Your task to perform on an android device: toggle data saver in the chrome app Image 0: 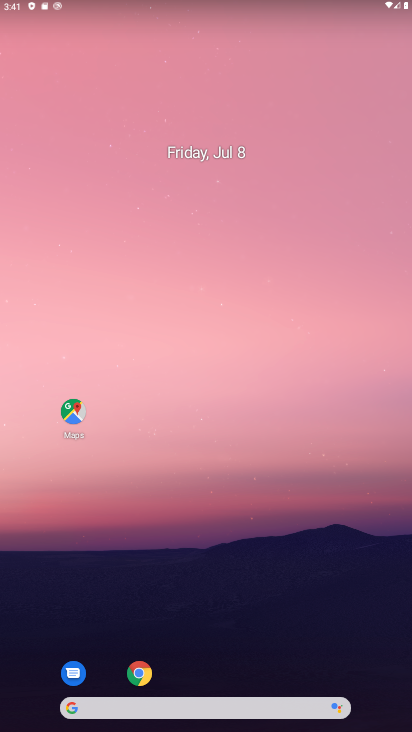
Step 0: click (140, 674)
Your task to perform on an android device: toggle data saver in the chrome app Image 1: 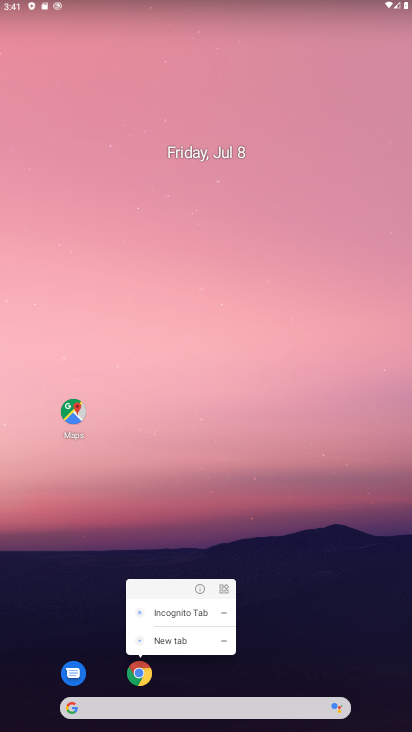
Step 1: click (141, 672)
Your task to perform on an android device: toggle data saver in the chrome app Image 2: 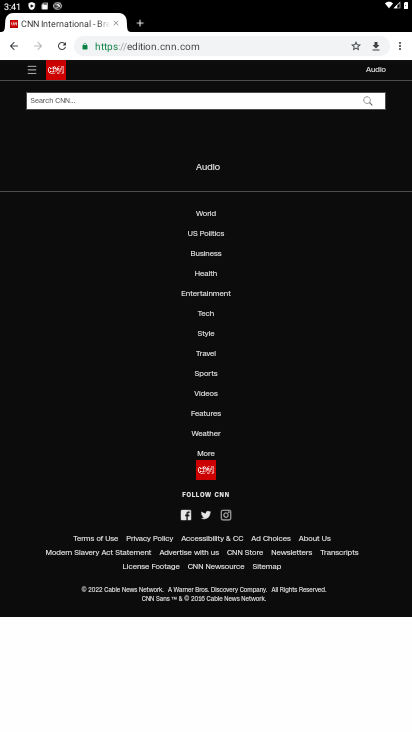
Step 2: drag from (401, 44) to (304, 303)
Your task to perform on an android device: toggle data saver in the chrome app Image 3: 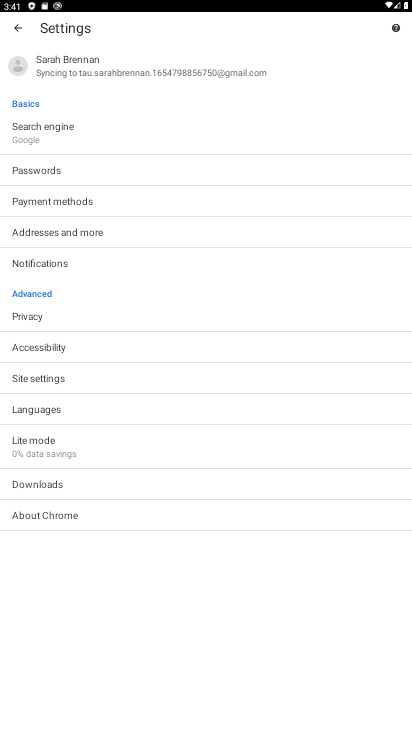
Step 3: click (29, 442)
Your task to perform on an android device: toggle data saver in the chrome app Image 4: 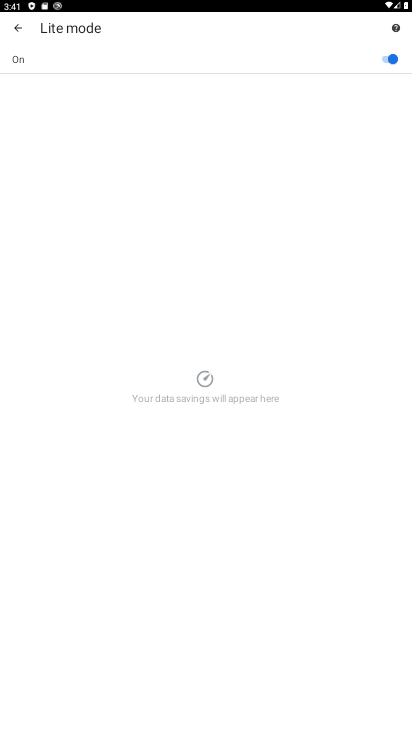
Step 4: click (397, 57)
Your task to perform on an android device: toggle data saver in the chrome app Image 5: 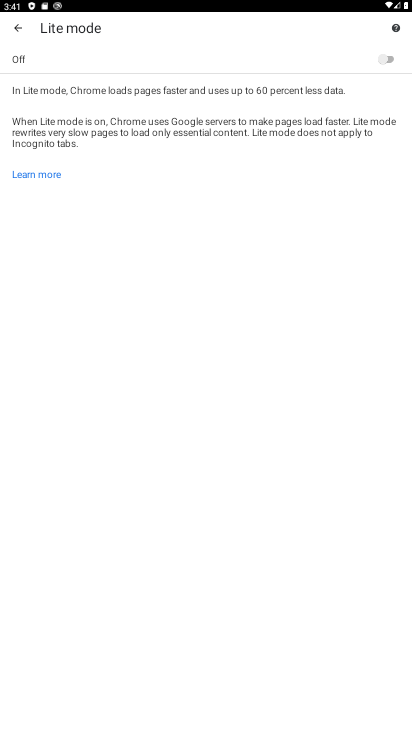
Step 5: task complete